Your task to perform on an android device: change text size in settings app Image 0: 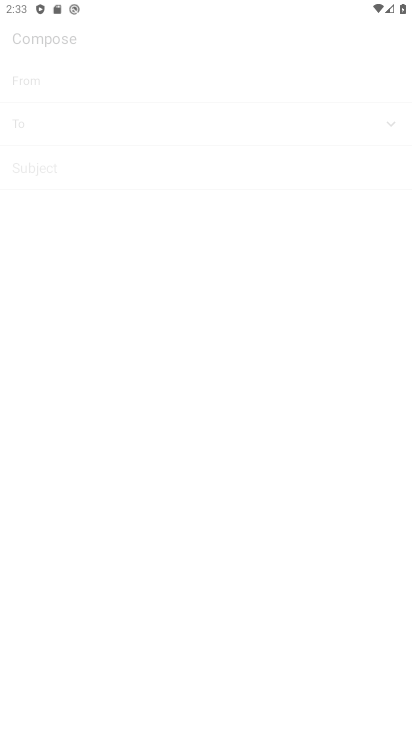
Step 0: drag from (209, 668) to (245, 327)
Your task to perform on an android device: change text size in settings app Image 1: 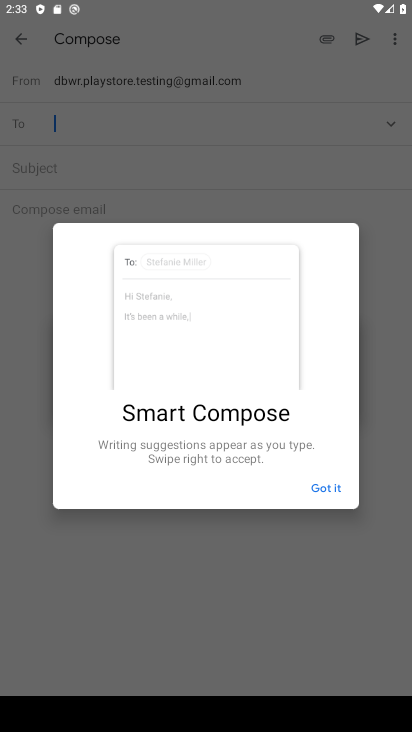
Step 1: press home button
Your task to perform on an android device: change text size in settings app Image 2: 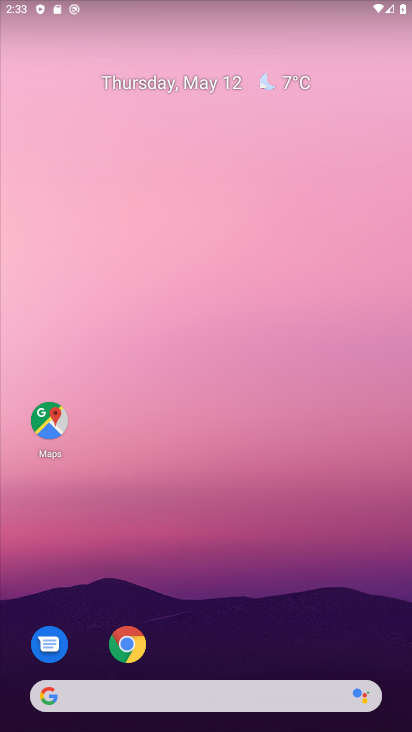
Step 2: drag from (174, 654) to (254, 102)
Your task to perform on an android device: change text size in settings app Image 3: 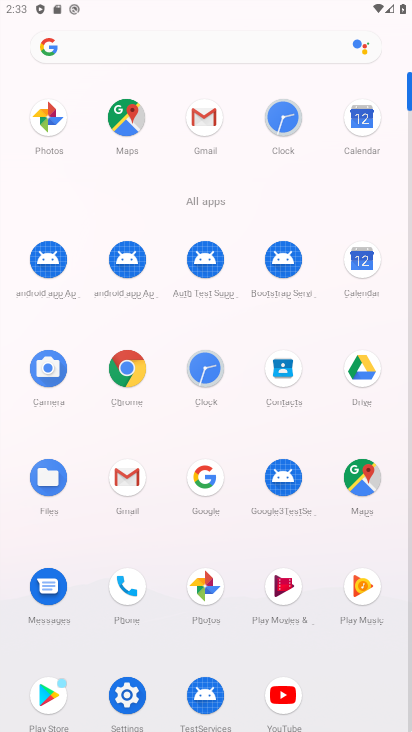
Step 3: click (110, 706)
Your task to perform on an android device: change text size in settings app Image 4: 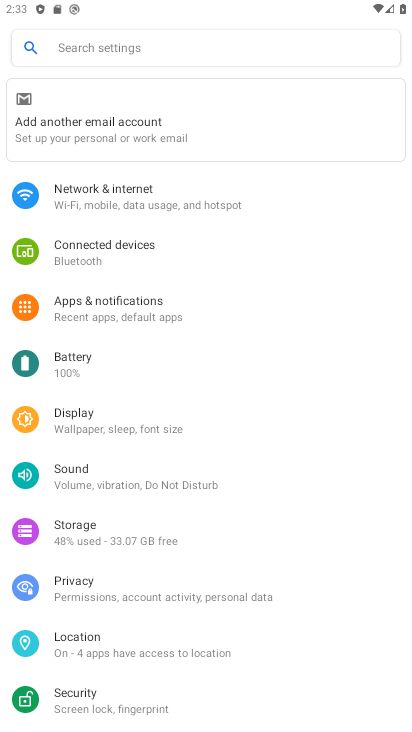
Step 4: click (106, 430)
Your task to perform on an android device: change text size in settings app Image 5: 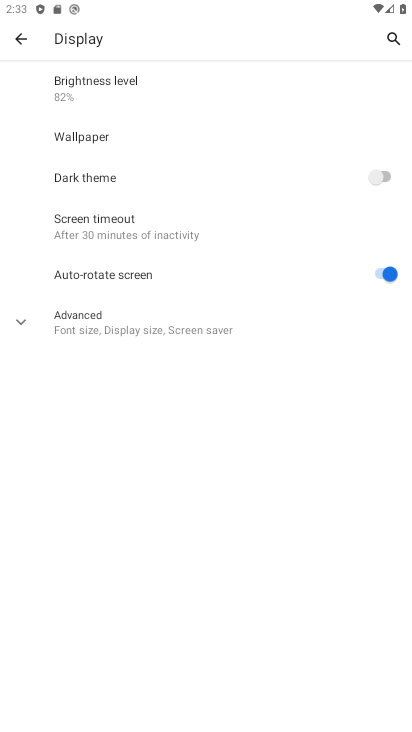
Step 5: click (151, 332)
Your task to perform on an android device: change text size in settings app Image 6: 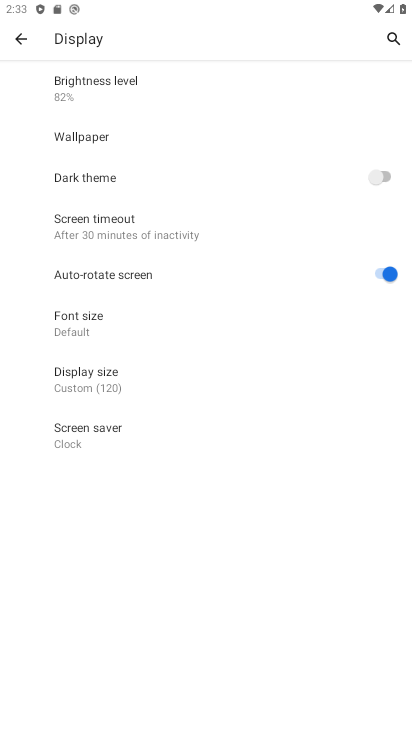
Step 6: click (150, 331)
Your task to perform on an android device: change text size in settings app Image 7: 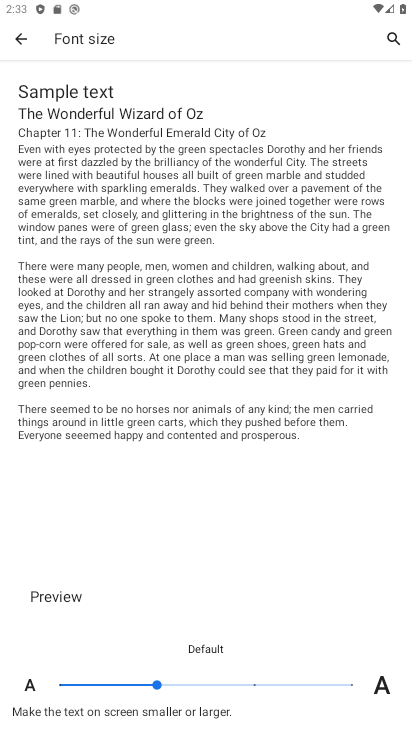
Step 7: click (252, 684)
Your task to perform on an android device: change text size in settings app Image 8: 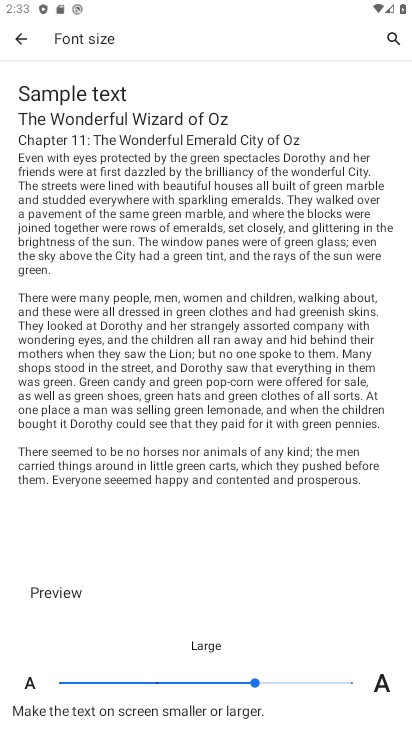
Step 8: task complete